Your task to perform on an android device: Open calendar and show me the fourth week of next month Image 0: 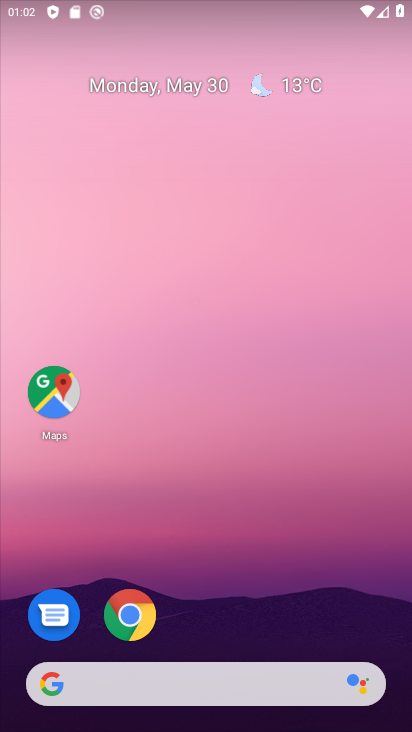
Step 0: drag from (237, 651) to (201, 0)
Your task to perform on an android device: Open calendar and show me the fourth week of next month Image 1: 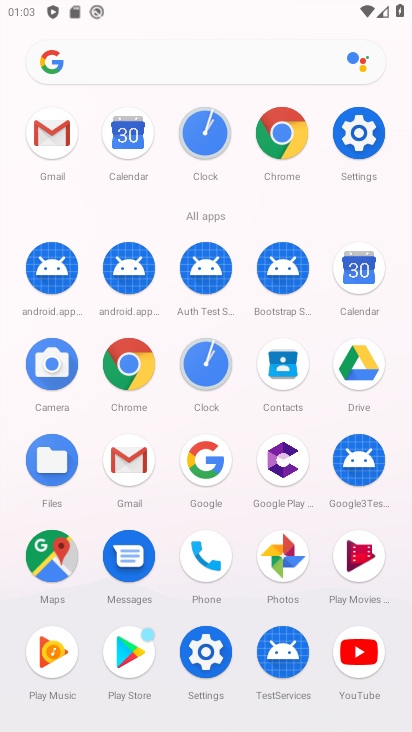
Step 1: click (362, 274)
Your task to perform on an android device: Open calendar and show me the fourth week of next month Image 2: 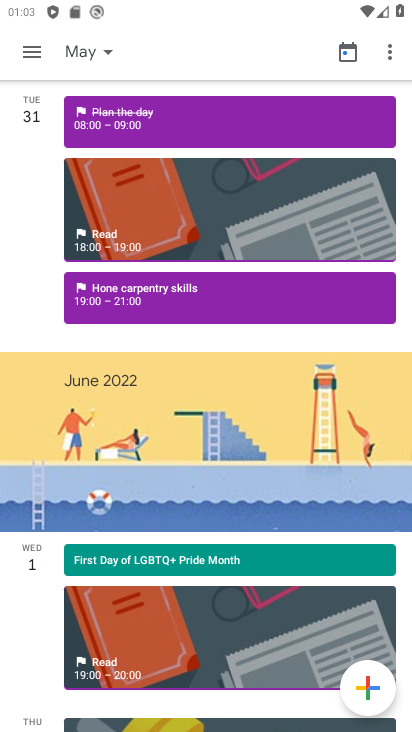
Step 2: click (349, 47)
Your task to perform on an android device: Open calendar and show me the fourth week of next month Image 3: 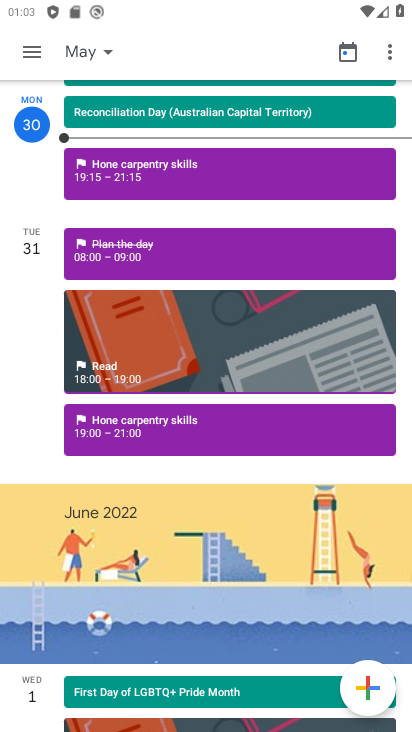
Step 3: click (347, 48)
Your task to perform on an android device: Open calendar and show me the fourth week of next month Image 4: 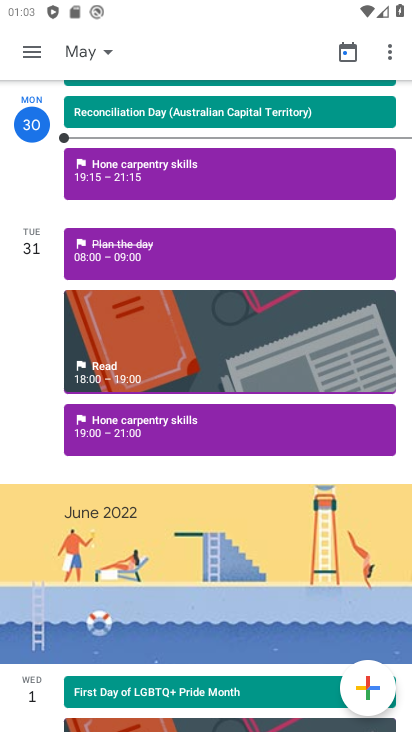
Step 4: click (347, 48)
Your task to perform on an android device: Open calendar and show me the fourth week of next month Image 5: 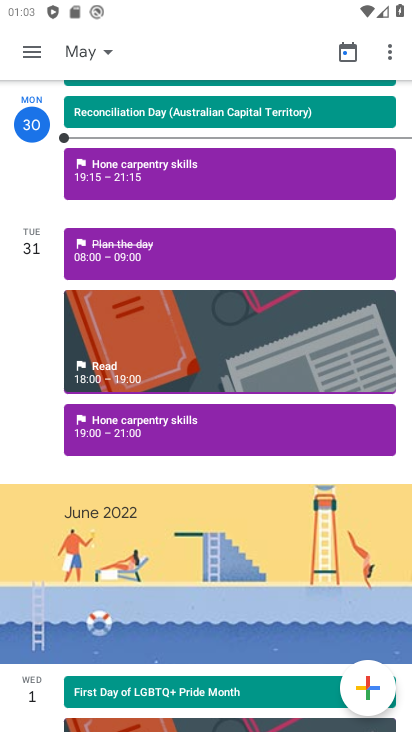
Step 5: click (344, 54)
Your task to perform on an android device: Open calendar and show me the fourth week of next month Image 6: 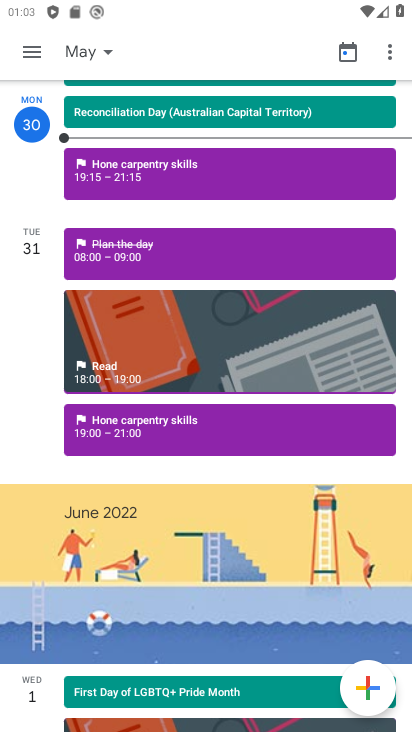
Step 6: click (31, 62)
Your task to perform on an android device: Open calendar and show me the fourth week of next month Image 7: 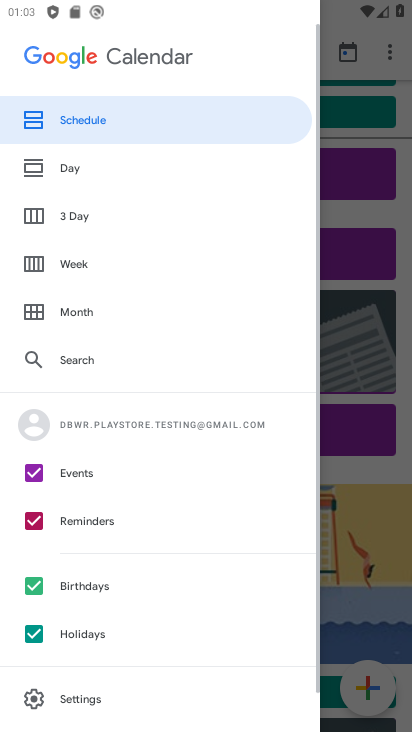
Step 7: click (72, 253)
Your task to perform on an android device: Open calendar and show me the fourth week of next month Image 8: 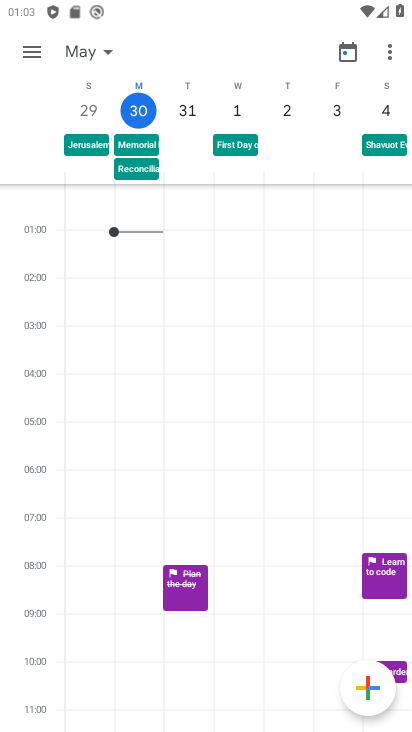
Step 8: task complete